Your task to perform on an android device: Search for pizza restaurants on Maps Image 0: 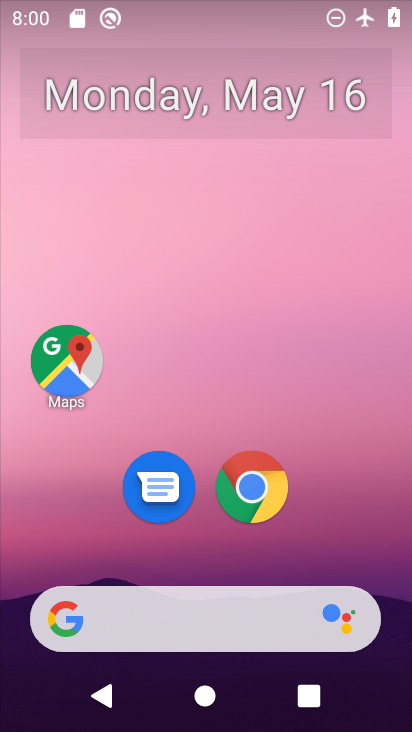
Step 0: click (61, 370)
Your task to perform on an android device: Search for pizza restaurants on Maps Image 1: 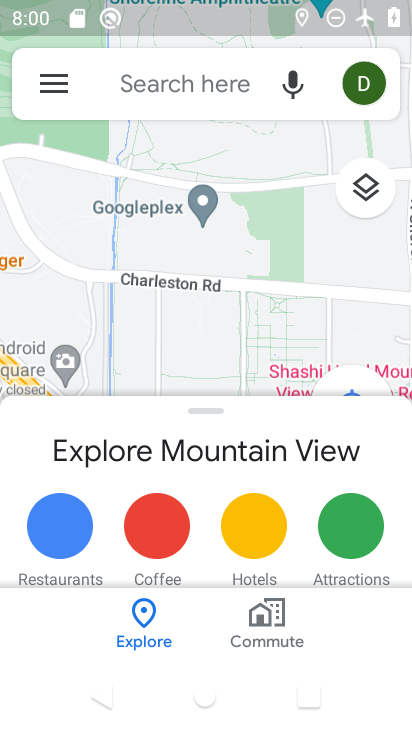
Step 1: click (171, 84)
Your task to perform on an android device: Search for pizza restaurants on Maps Image 2: 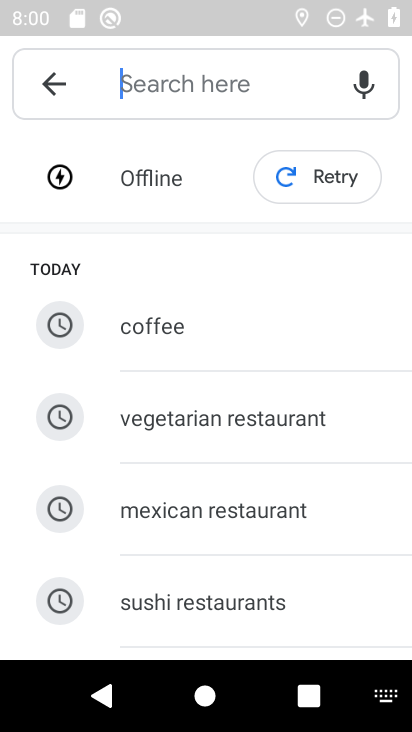
Step 2: drag from (196, 496) to (199, 178)
Your task to perform on an android device: Search for pizza restaurants on Maps Image 3: 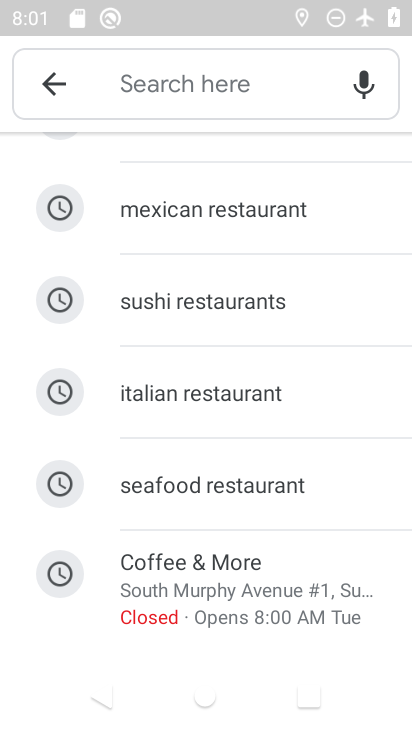
Step 3: type "pizza restaurants"
Your task to perform on an android device: Search for pizza restaurants on Maps Image 4: 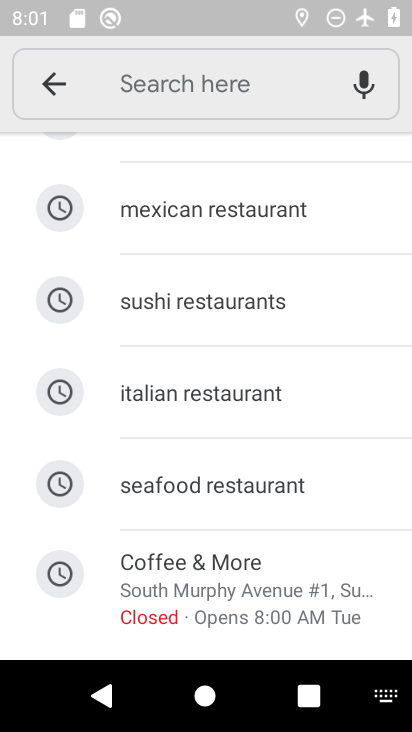
Step 4: click (240, 93)
Your task to perform on an android device: Search for pizza restaurants on Maps Image 5: 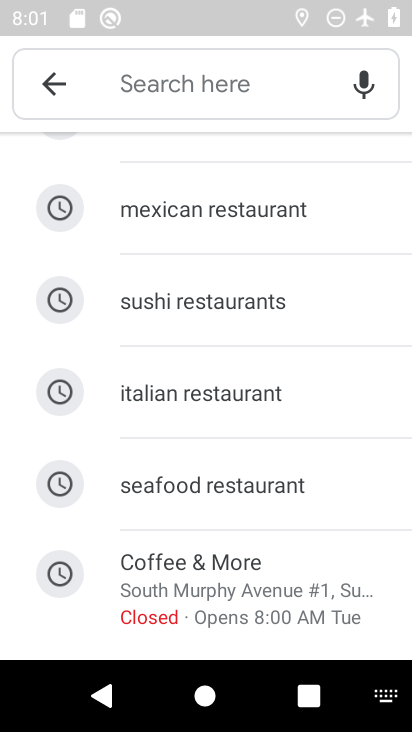
Step 5: type "pizza restaurants"
Your task to perform on an android device: Search for pizza restaurants on Maps Image 6: 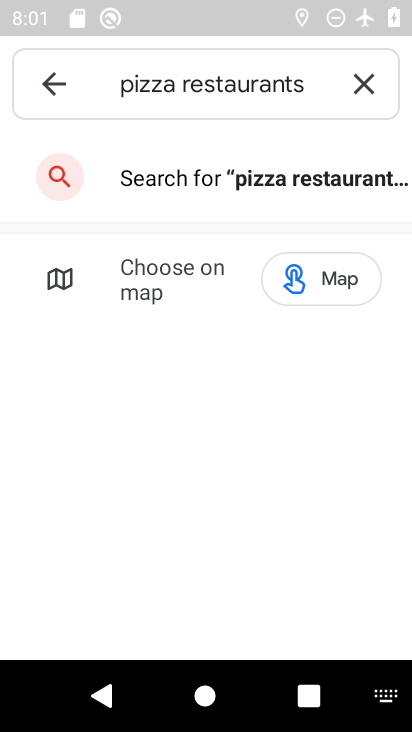
Step 6: click (316, 167)
Your task to perform on an android device: Search for pizza restaurants on Maps Image 7: 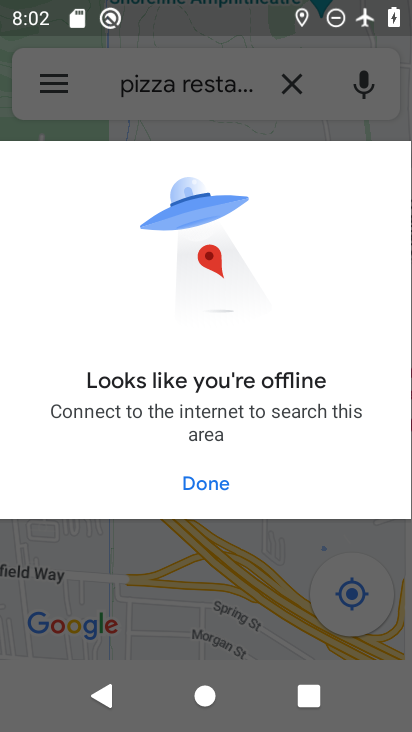
Step 7: task complete